Your task to perform on an android device: turn on location history Image 0: 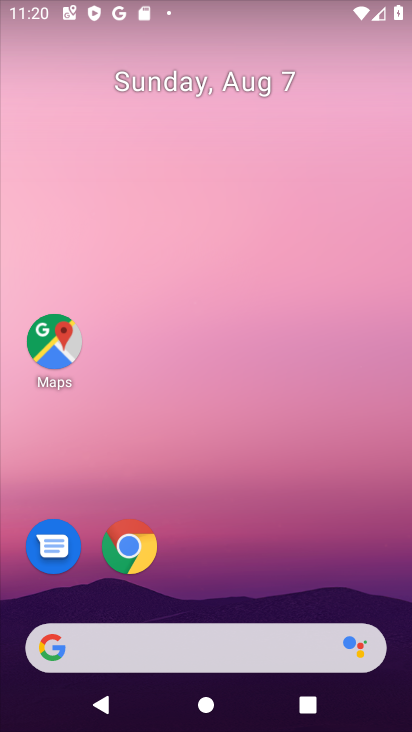
Step 0: press back button
Your task to perform on an android device: turn on location history Image 1: 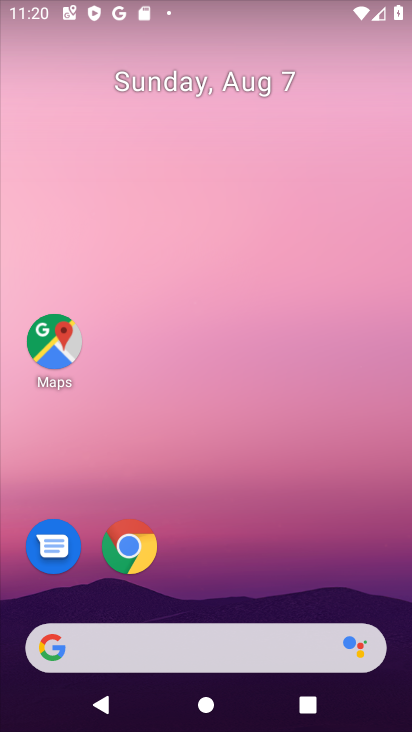
Step 1: click (107, 181)
Your task to perform on an android device: turn on location history Image 2: 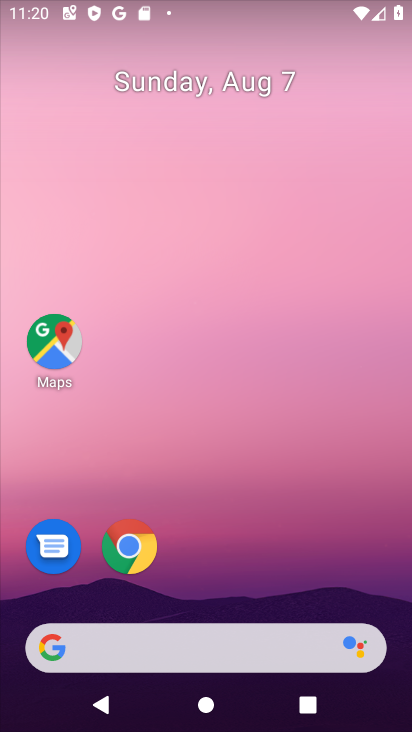
Step 2: drag from (232, 625) to (192, 238)
Your task to perform on an android device: turn on location history Image 3: 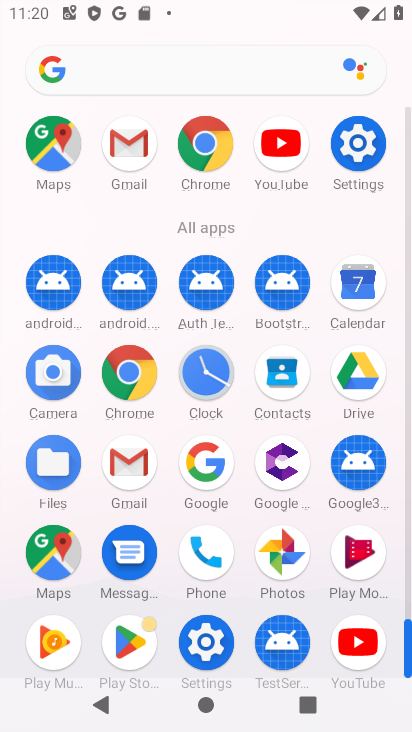
Step 3: drag from (220, 591) to (144, 156)
Your task to perform on an android device: turn on location history Image 4: 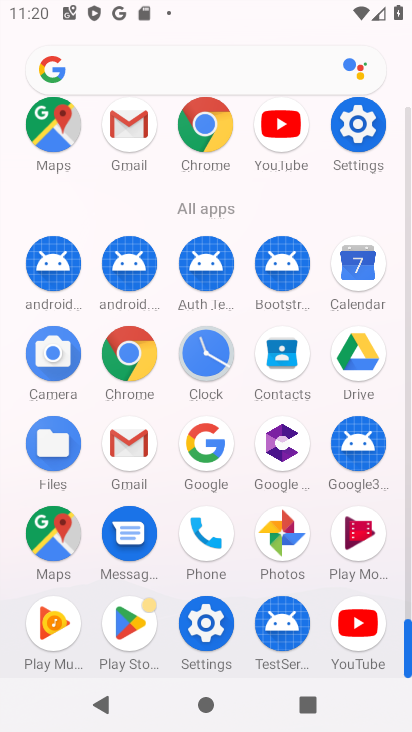
Step 4: click (53, 138)
Your task to perform on an android device: turn on location history Image 5: 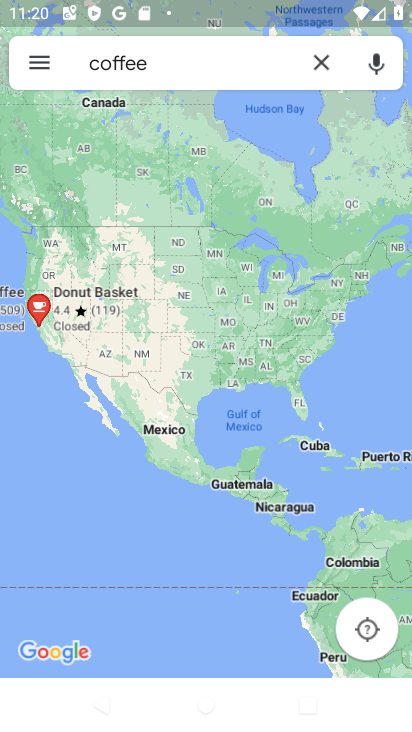
Step 5: press back button
Your task to perform on an android device: turn on location history Image 6: 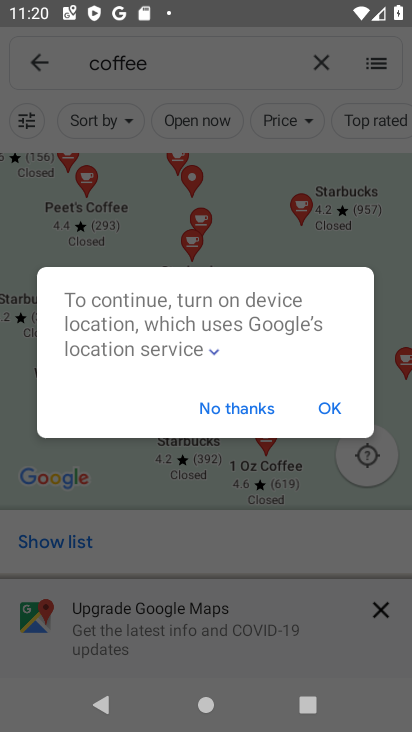
Step 6: click (235, 403)
Your task to perform on an android device: turn on location history Image 7: 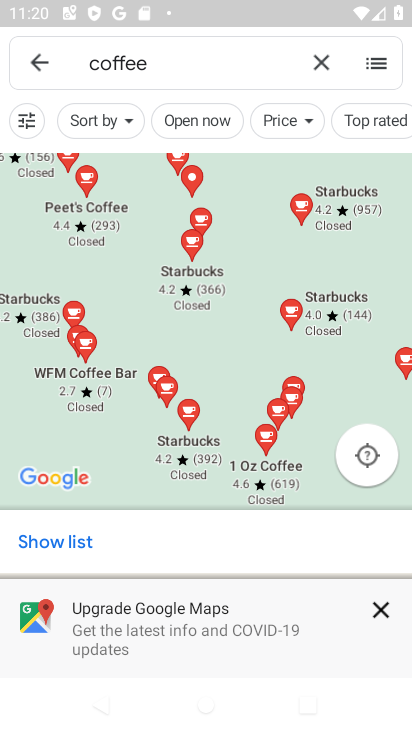
Step 7: click (380, 70)
Your task to perform on an android device: turn on location history Image 8: 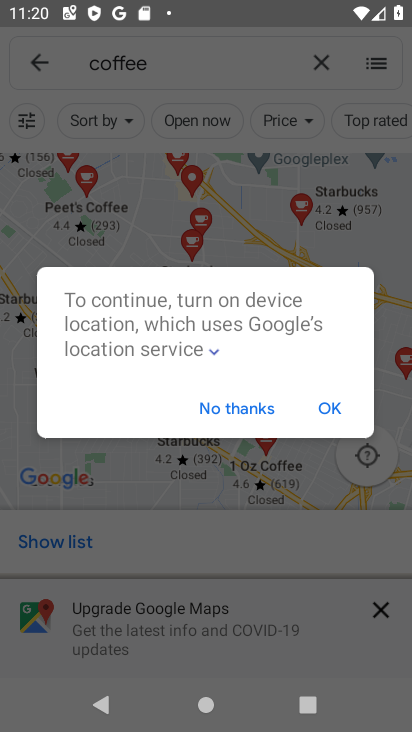
Step 8: click (246, 389)
Your task to perform on an android device: turn on location history Image 9: 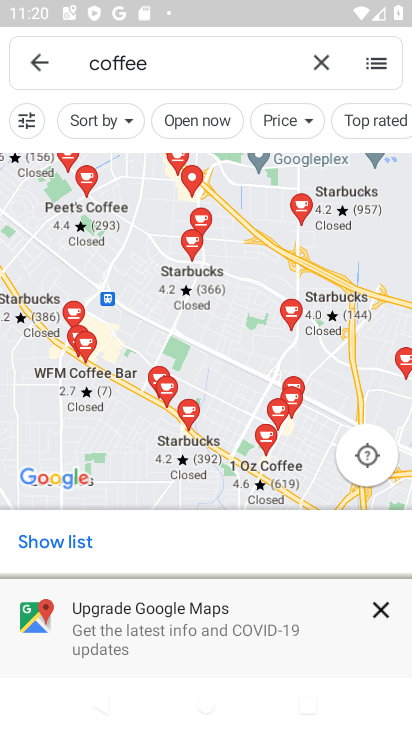
Step 9: press back button
Your task to perform on an android device: turn on location history Image 10: 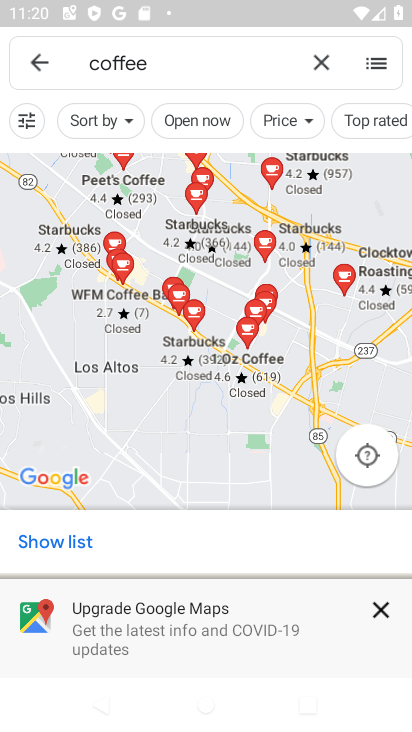
Step 10: press back button
Your task to perform on an android device: turn on location history Image 11: 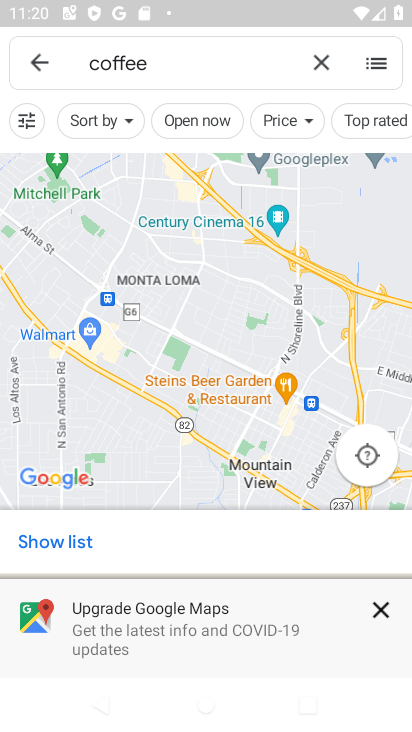
Step 11: press back button
Your task to perform on an android device: turn on location history Image 12: 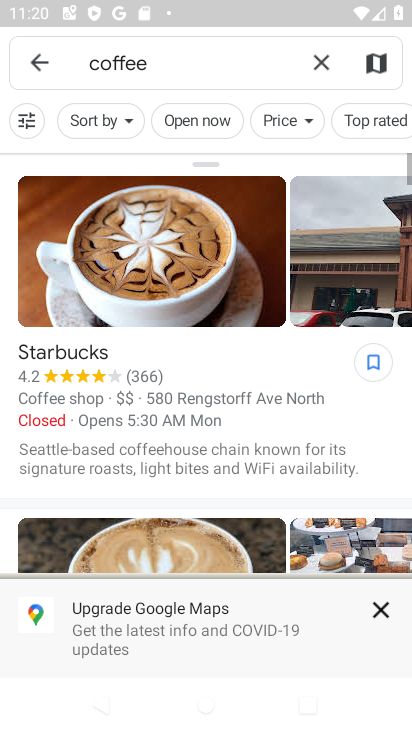
Step 12: press home button
Your task to perform on an android device: turn on location history Image 13: 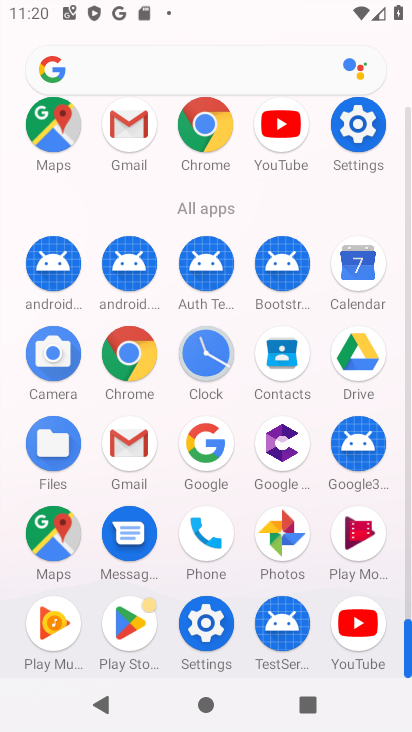
Step 13: press home button
Your task to perform on an android device: turn on location history Image 14: 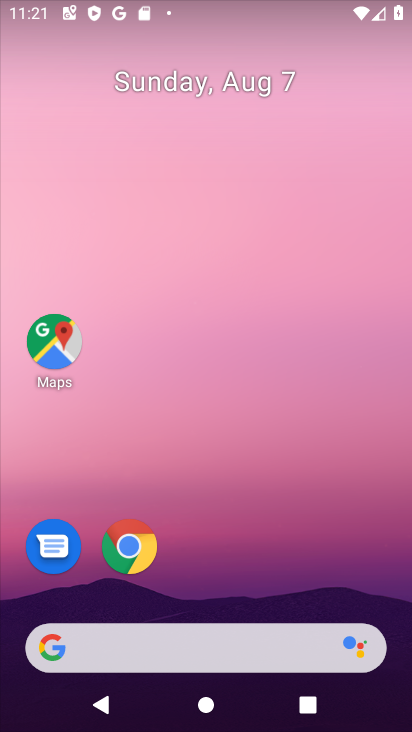
Step 14: press home button
Your task to perform on an android device: turn on location history Image 15: 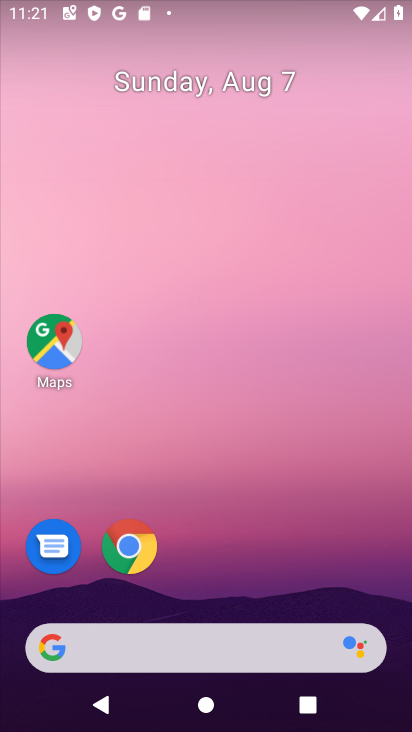
Step 15: press home button
Your task to perform on an android device: turn on location history Image 16: 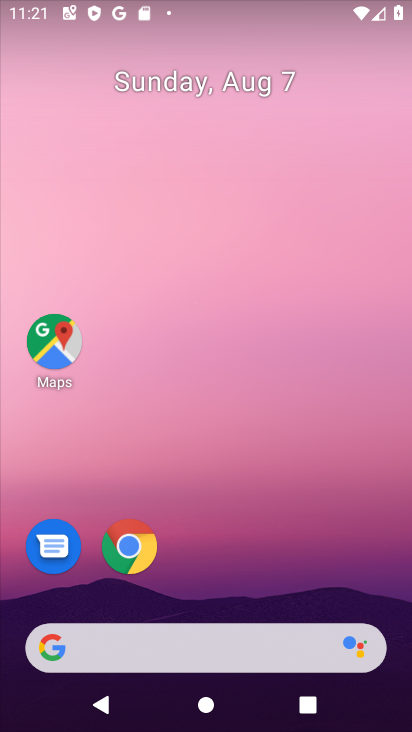
Step 16: drag from (261, 660) to (244, 184)
Your task to perform on an android device: turn on location history Image 17: 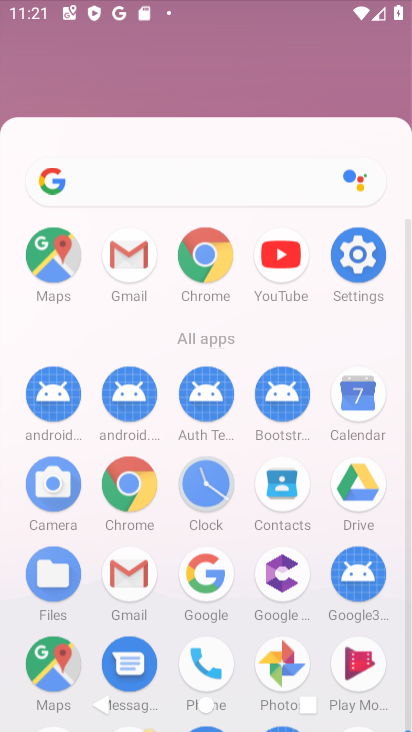
Step 17: click (166, 177)
Your task to perform on an android device: turn on location history Image 18: 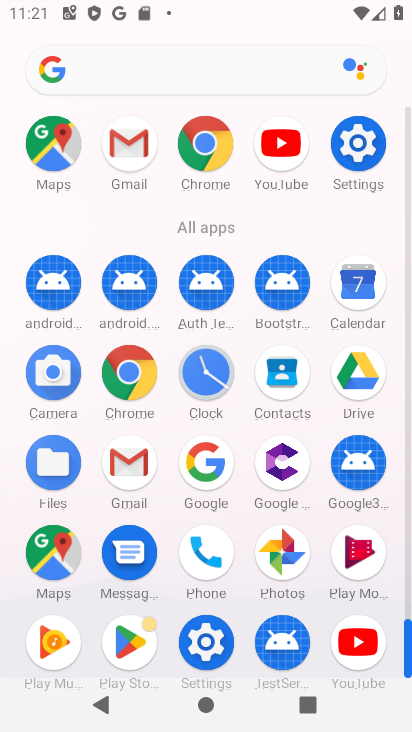
Step 18: drag from (267, 424) to (252, 167)
Your task to perform on an android device: turn on location history Image 19: 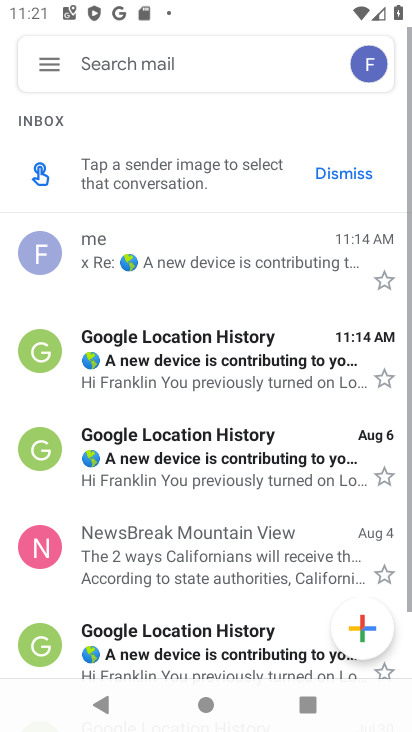
Step 19: press back button
Your task to perform on an android device: turn on location history Image 20: 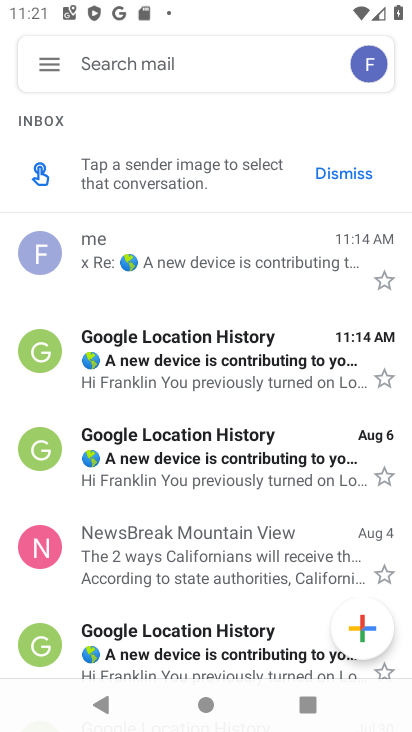
Step 20: press back button
Your task to perform on an android device: turn on location history Image 21: 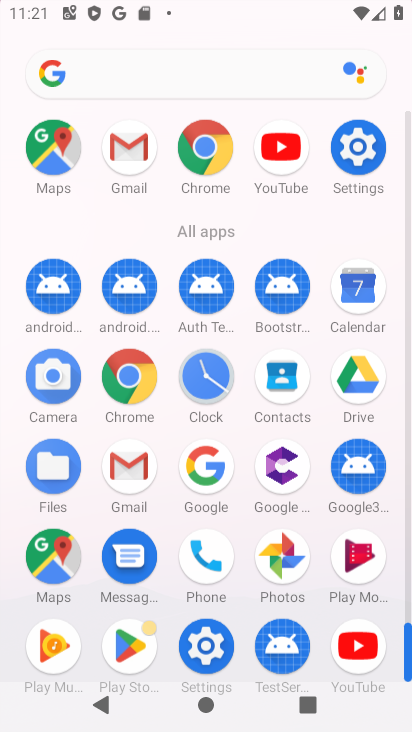
Step 21: press back button
Your task to perform on an android device: turn on location history Image 22: 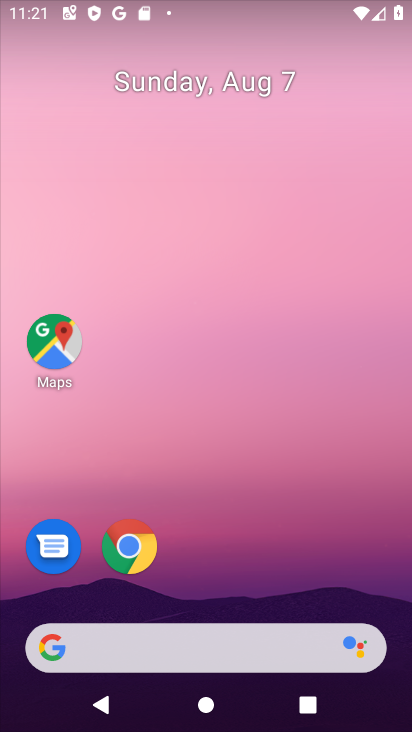
Step 22: drag from (255, 598) to (198, 194)
Your task to perform on an android device: turn on location history Image 23: 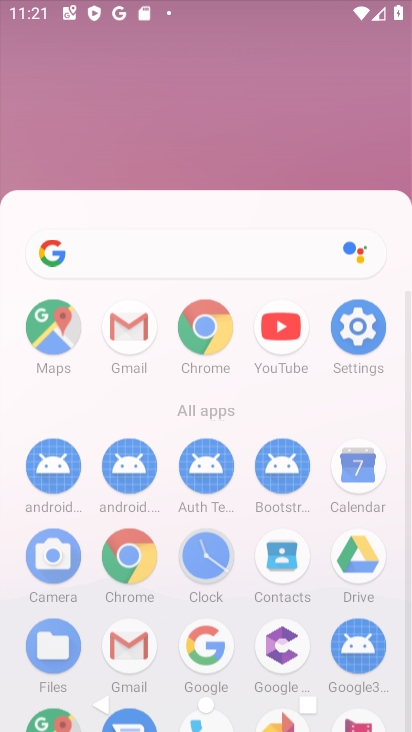
Step 23: click (259, 331)
Your task to perform on an android device: turn on location history Image 24: 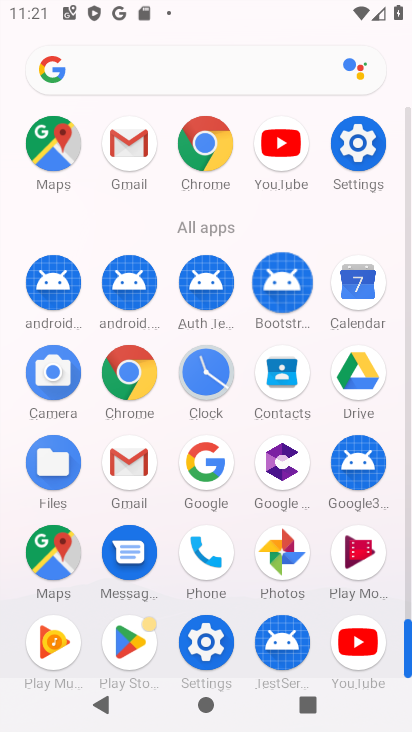
Step 24: click (367, 150)
Your task to perform on an android device: turn on location history Image 25: 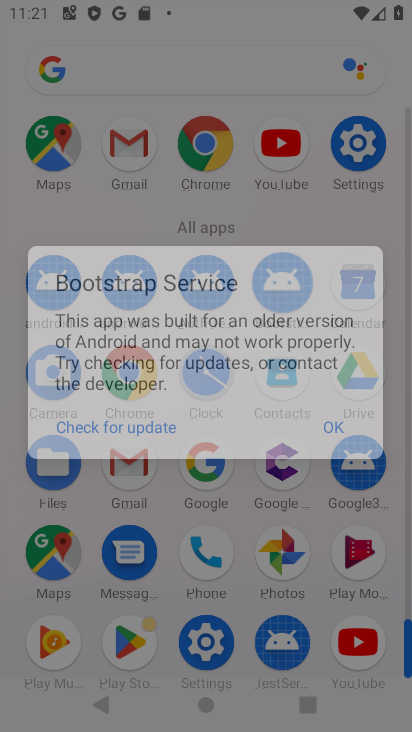
Step 25: click (361, 145)
Your task to perform on an android device: turn on location history Image 26: 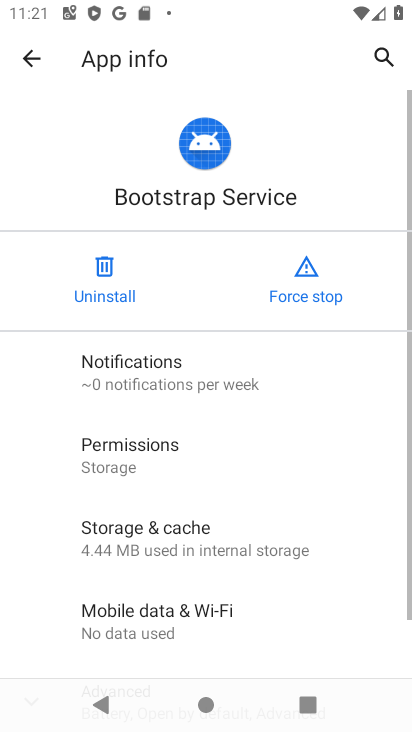
Step 26: click (36, 59)
Your task to perform on an android device: turn on location history Image 27: 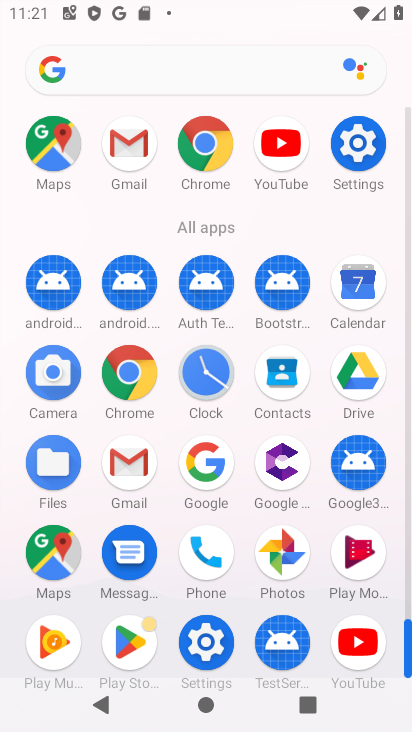
Step 27: click (358, 150)
Your task to perform on an android device: turn on location history Image 28: 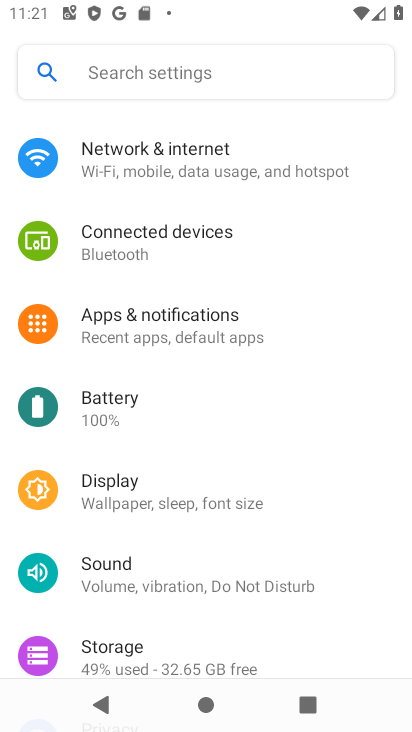
Step 28: click (358, 150)
Your task to perform on an android device: turn on location history Image 29: 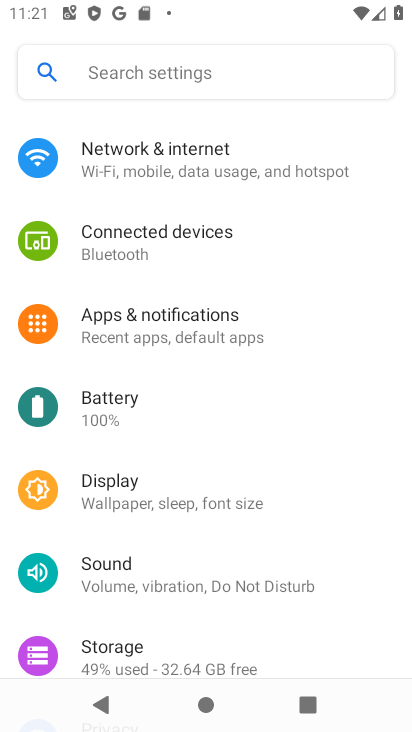
Step 29: click (358, 150)
Your task to perform on an android device: turn on location history Image 30: 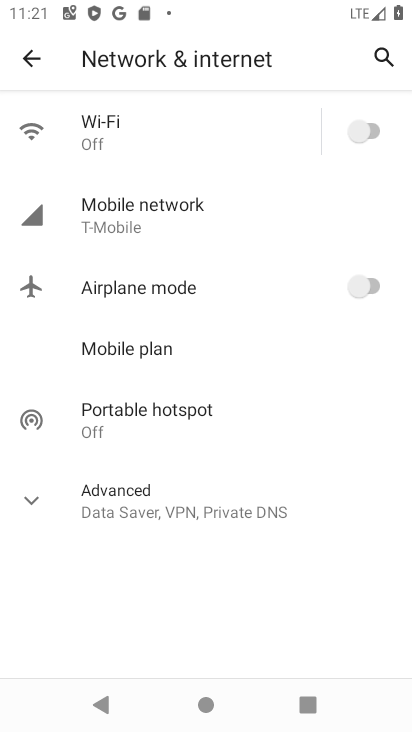
Step 30: click (32, 53)
Your task to perform on an android device: turn on location history Image 31: 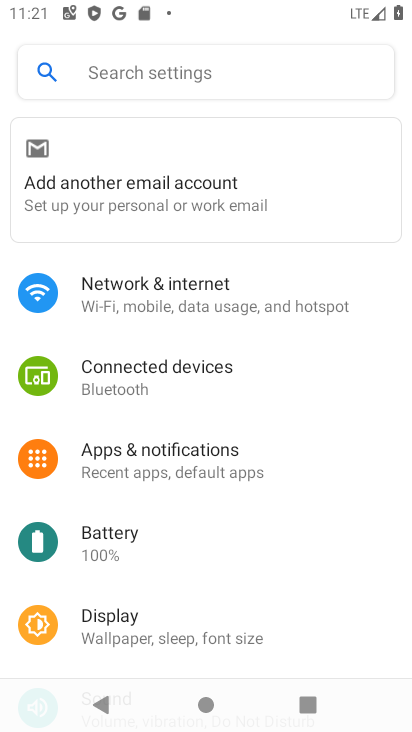
Step 31: drag from (163, 557) to (141, 164)
Your task to perform on an android device: turn on location history Image 32: 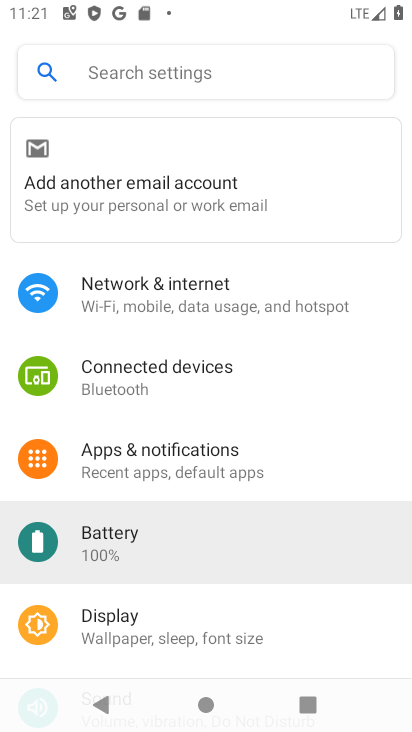
Step 32: drag from (201, 461) to (208, 232)
Your task to perform on an android device: turn on location history Image 33: 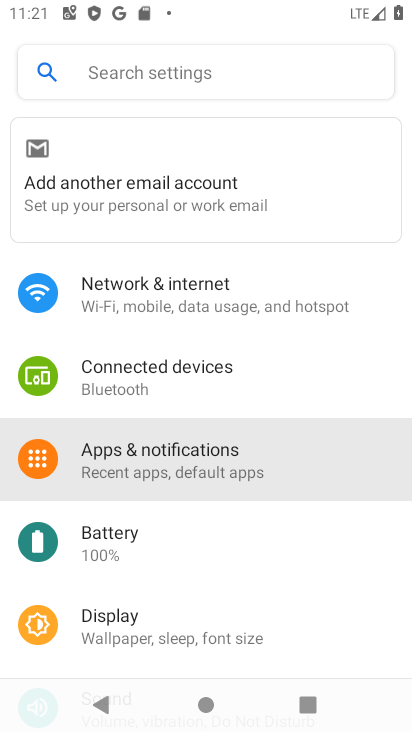
Step 33: drag from (246, 425) to (281, 207)
Your task to perform on an android device: turn on location history Image 34: 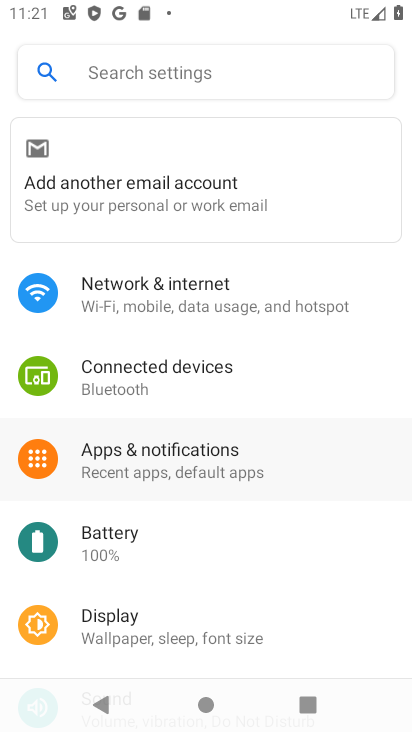
Step 34: drag from (208, 539) to (241, 323)
Your task to perform on an android device: turn on location history Image 35: 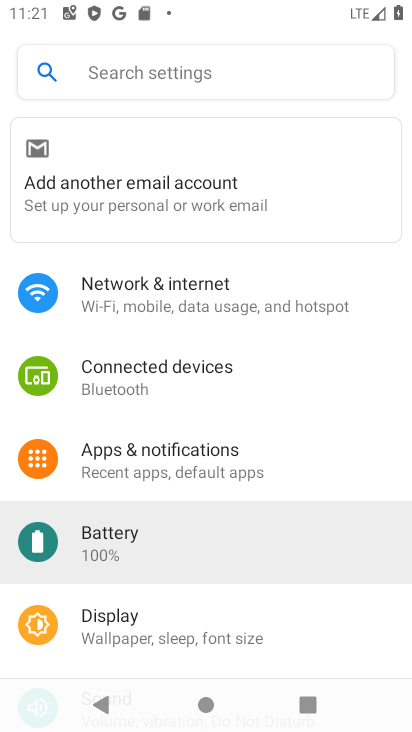
Step 35: drag from (244, 527) to (230, 327)
Your task to perform on an android device: turn on location history Image 36: 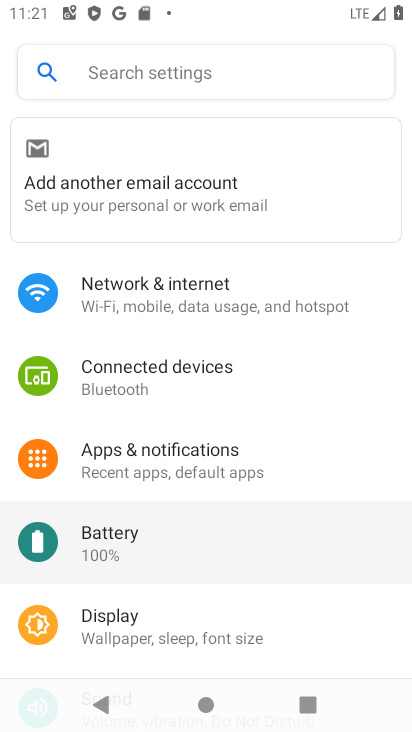
Step 36: drag from (221, 511) to (286, 260)
Your task to perform on an android device: turn on location history Image 37: 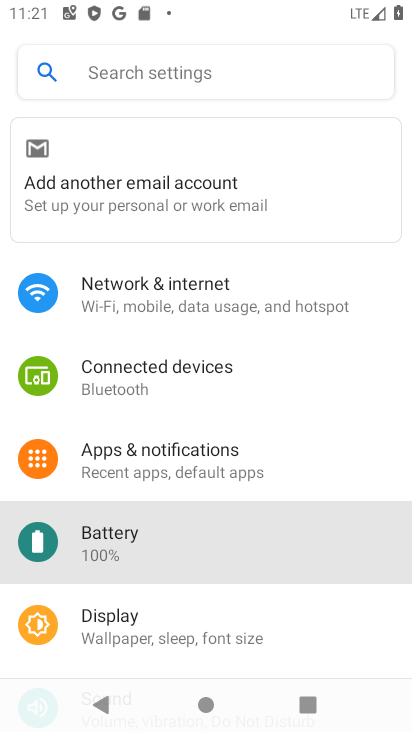
Step 37: drag from (281, 528) to (328, 208)
Your task to perform on an android device: turn on location history Image 38: 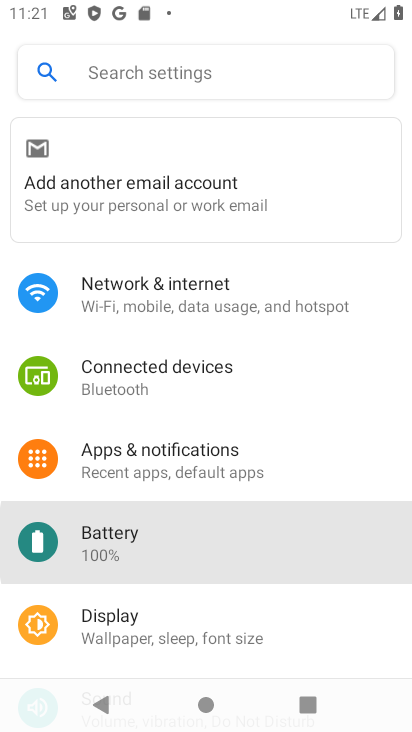
Step 38: drag from (213, 580) to (307, 204)
Your task to perform on an android device: turn on location history Image 39: 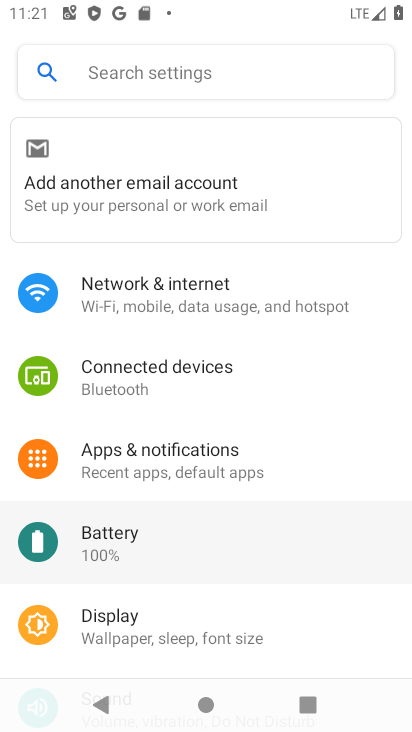
Step 39: drag from (225, 620) to (294, 271)
Your task to perform on an android device: turn on location history Image 40: 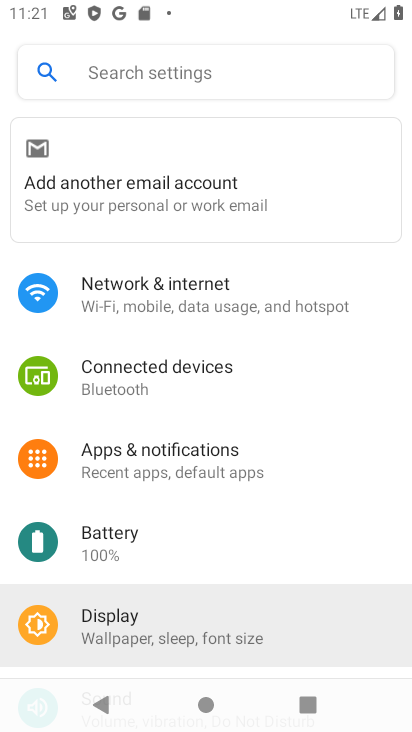
Step 40: drag from (259, 588) to (337, 316)
Your task to perform on an android device: turn on location history Image 41: 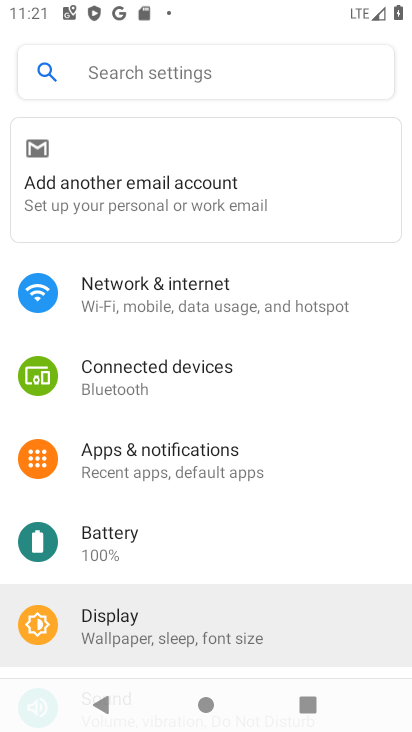
Step 41: drag from (257, 633) to (249, 246)
Your task to perform on an android device: turn on location history Image 42: 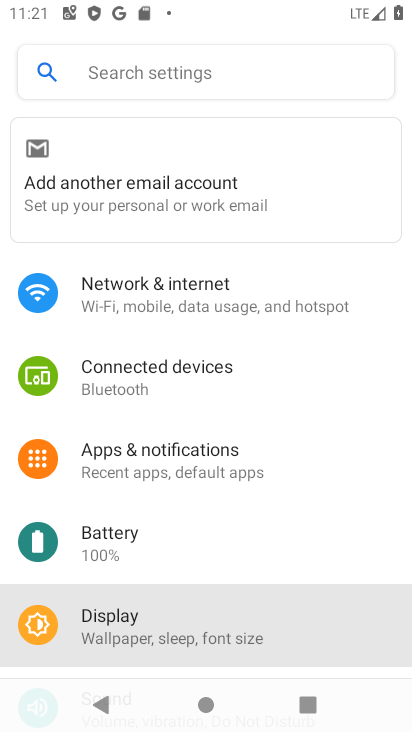
Step 42: drag from (139, 586) to (138, 242)
Your task to perform on an android device: turn on location history Image 43: 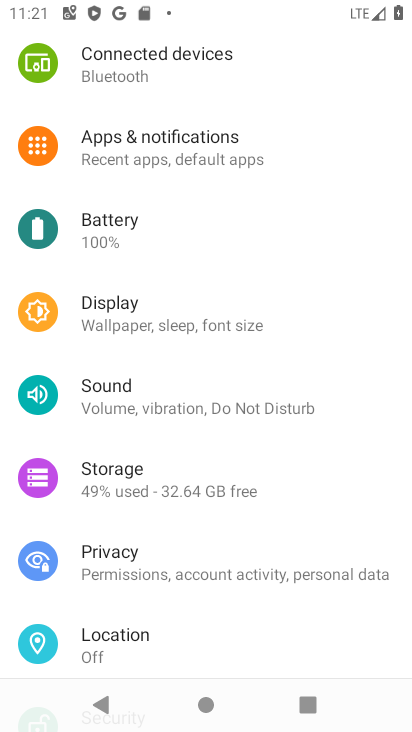
Step 43: drag from (167, 502) to (162, 241)
Your task to perform on an android device: turn on location history Image 44: 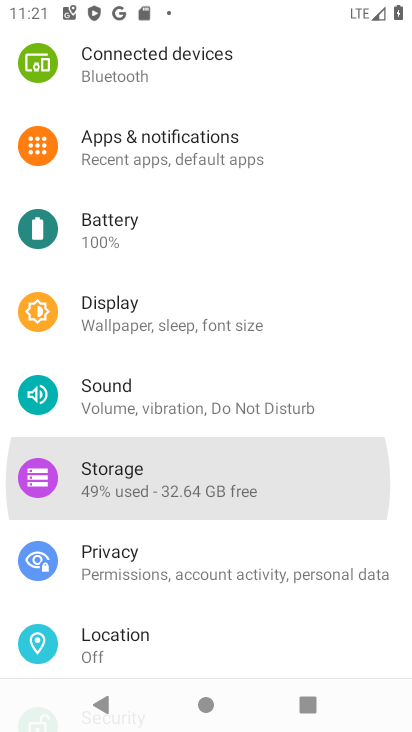
Step 44: drag from (203, 562) to (208, 266)
Your task to perform on an android device: turn on location history Image 45: 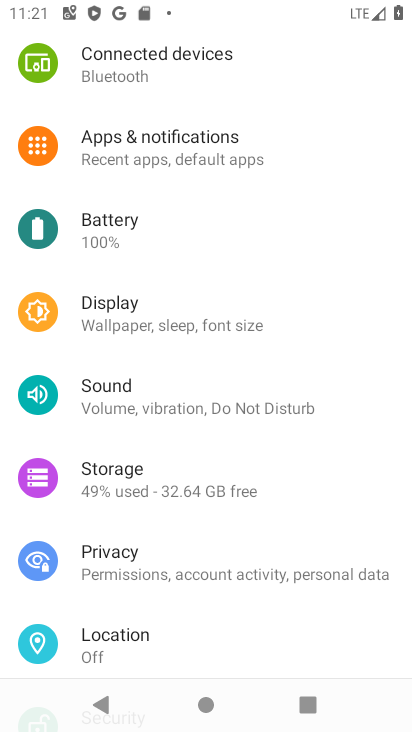
Step 45: click (117, 636)
Your task to perform on an android device: turn on location history Image 46: 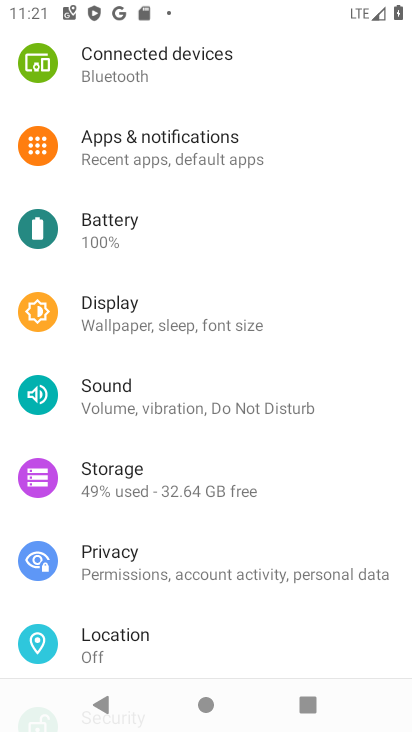
Step 46: click (117, 636)
Your task to perform on an android device: turn on location history Image 47: 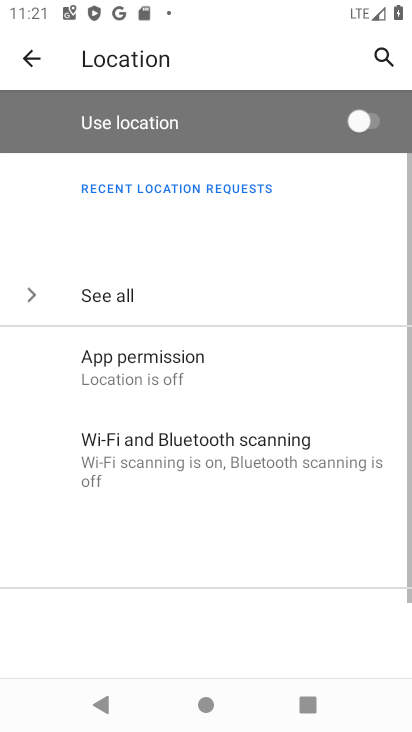
Step 47: click (128, 639)
Your task to perform on an android device: turn on location history Image 48: 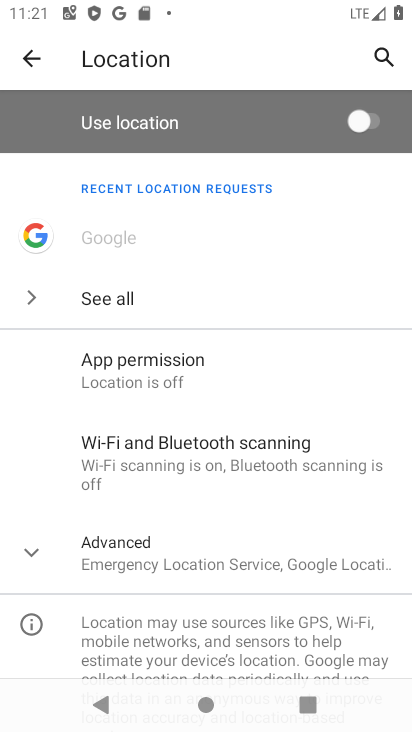
Step 48: drag from (163, 502) to (150, 233)
Your task to perform on an android device: turn on location history Image 49: 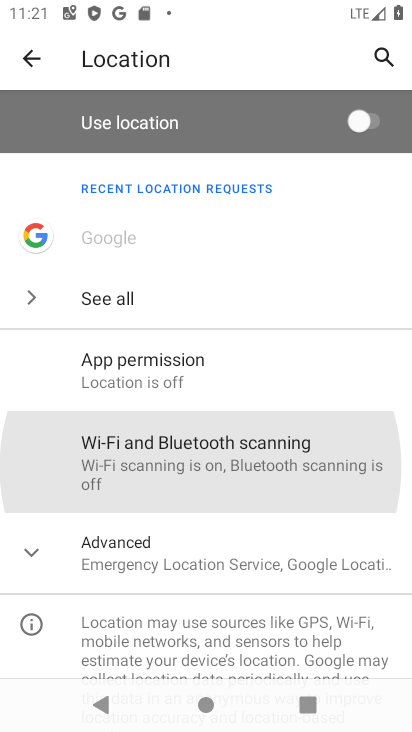
Step 49: drag from (173, 508) to (187, 296)
Your task to perform on an android device: turn on location history Image 50: 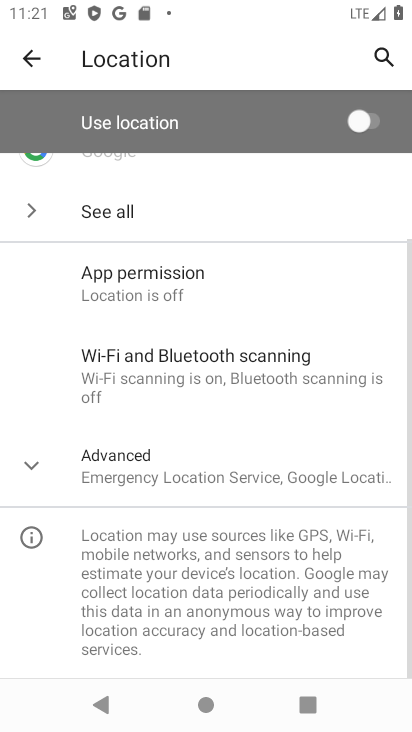
Step 50: click (162, 543)
Your task to perform on an android device: turn on location history Image 51: 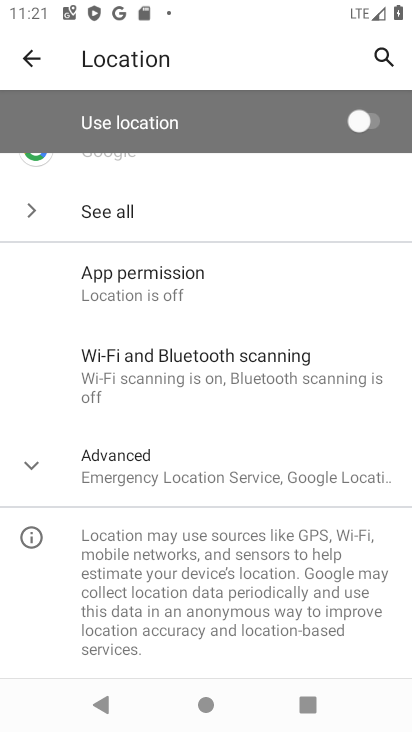
Step 51: click (121, 452)
Your task to perform on an android device: turn on location history Image 52: 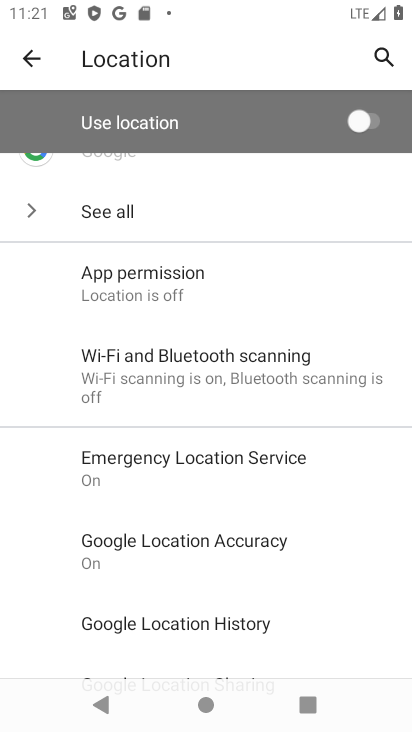
Step 52: drag from (264, 581) to (246, 314)
Your task to perform on an android device: turn on location history Image 53: 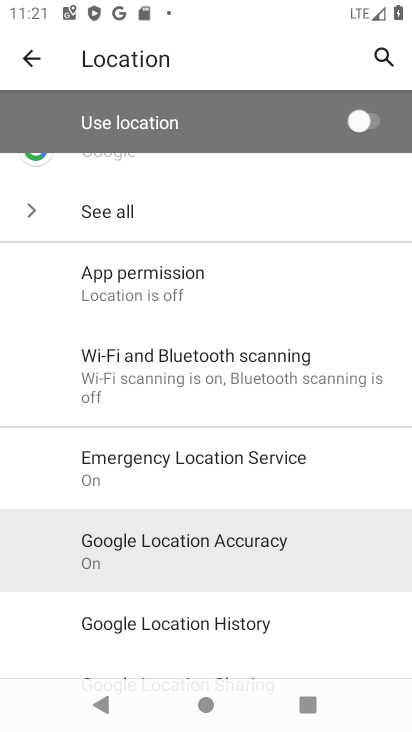
Step 53: drag from (265, 543) to (273, 394)
Your task to perform on an android device: turn on location history Image 54: 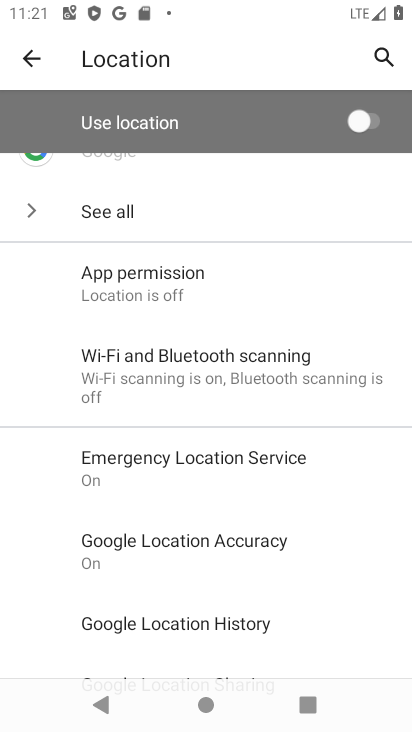
Step 54: drag from (259, 563) to (217, 271)
Your task to perform on an android device: turn on location history Image 55: 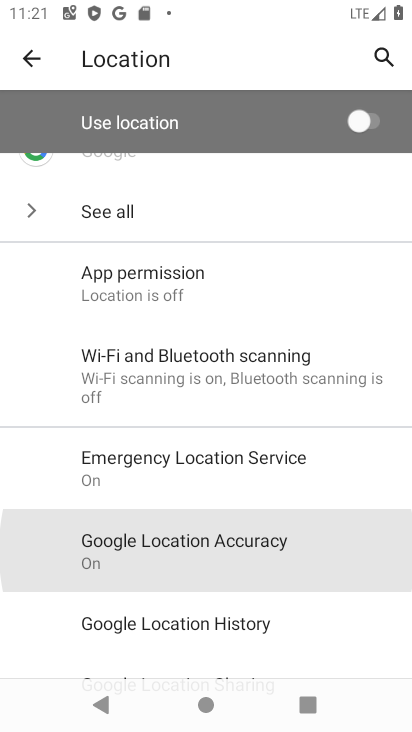
Step 55: drag from (197, 531) to (166, 336)
Your task to perform on an android device: turn on location history Image 56: 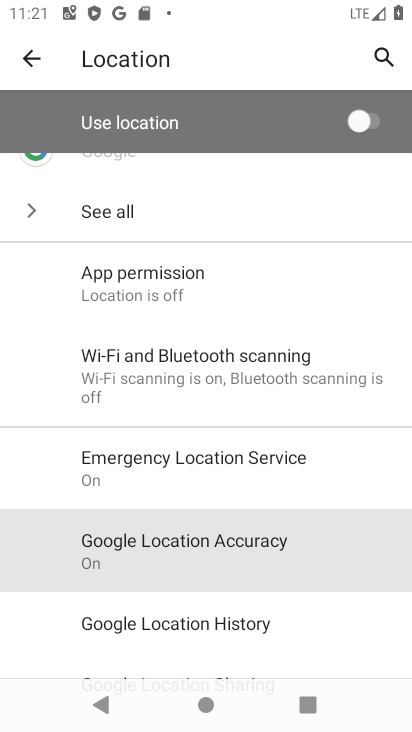
Step 56: drag from (200, 548) to (222, 277)
Your task to perform on an android device: turn on location history Image 57: 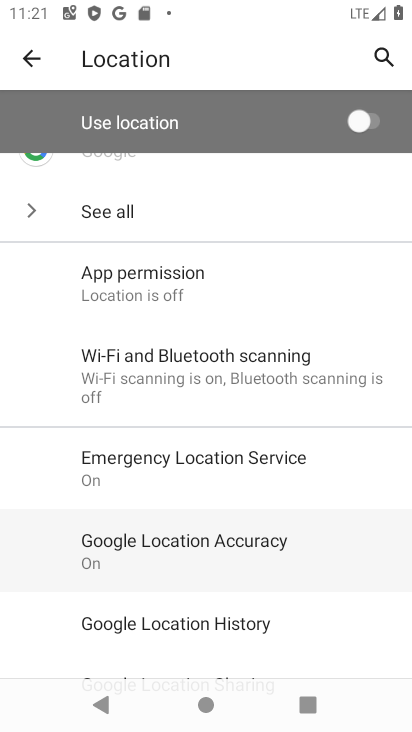
Step 57: drag from (241, 562) to (266, 355)
Your task to perform on an android device: turn on location history Image 58: 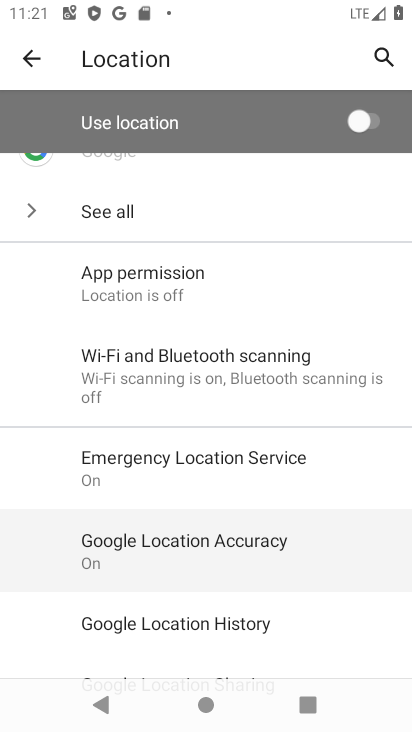
Step 58: drag from (238, 631) to (276, 351)
Your task to perform on an android device: turn on location history Image 59: 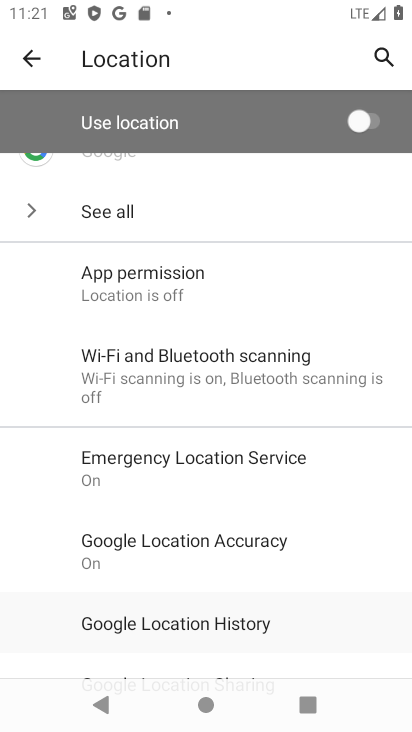
Step 59: drag from (171, 675) to (225, 422)
Your task to perform on an android device: turn on location history Image 60: 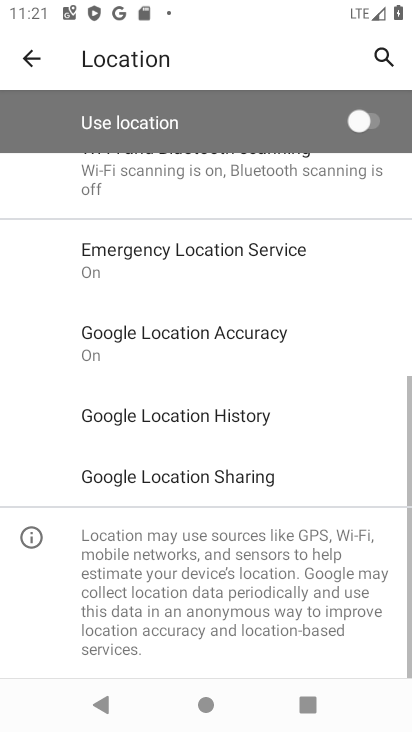
Step 60: click (194, 616)
Your task to perform on an android device: turn on location history Image 61: 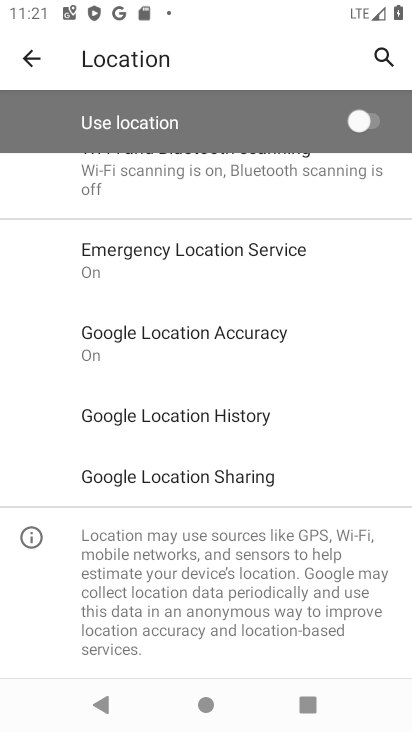
Step 61: click (229, 409)
Your task to perform on an android device: turn on location history Image 62: 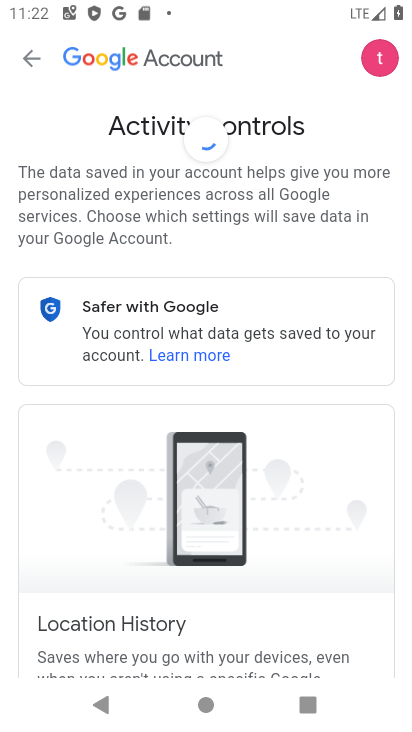
Step 62: drag from (240, 524) to (201, 186)
Your task to perform on an android device: turn on location history Image 63: 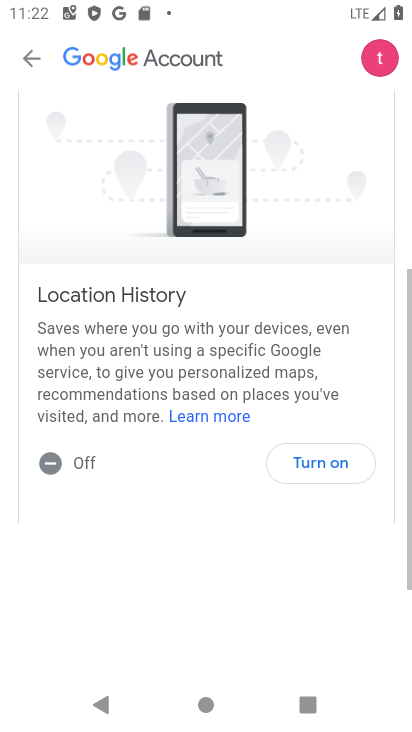
Step 63: drag from (183, 537) to (221, 269)
Your task to perform on an android device: turn on location history Image 64: 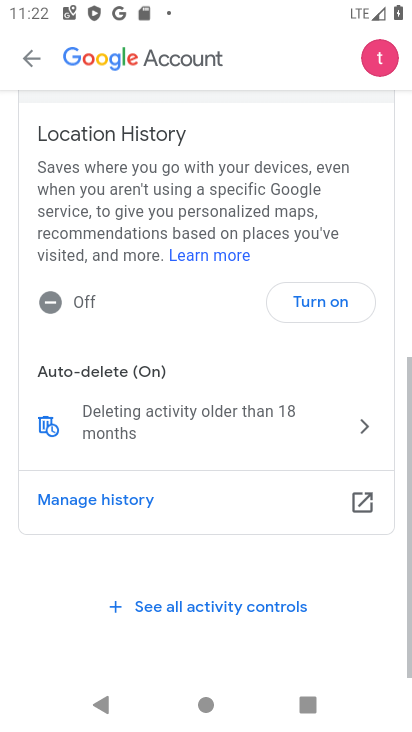
Step 64: drag from (239, 553) to (253, 245)
Your task to perform on an android device: turn on location history Image 65: 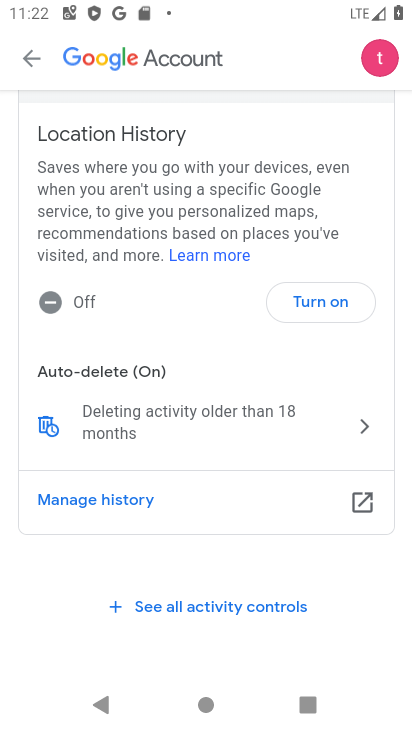
Step 65: click (52, 306)
Your task to perform on an android device: turn on location history Image 66: 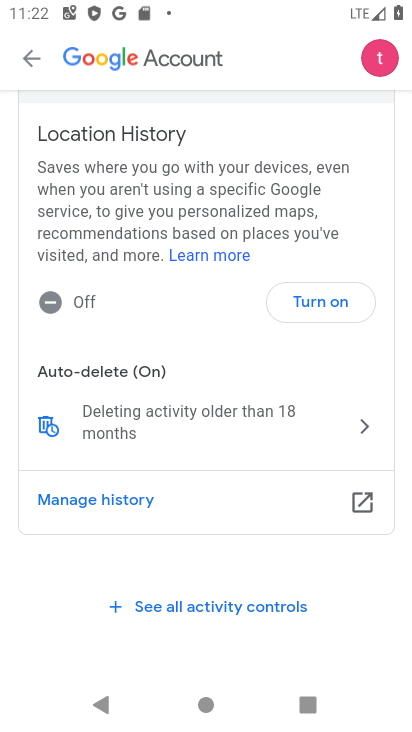
Step 66: click (302, 291)
Your task to perform on an android device: turn on location history Image 67: 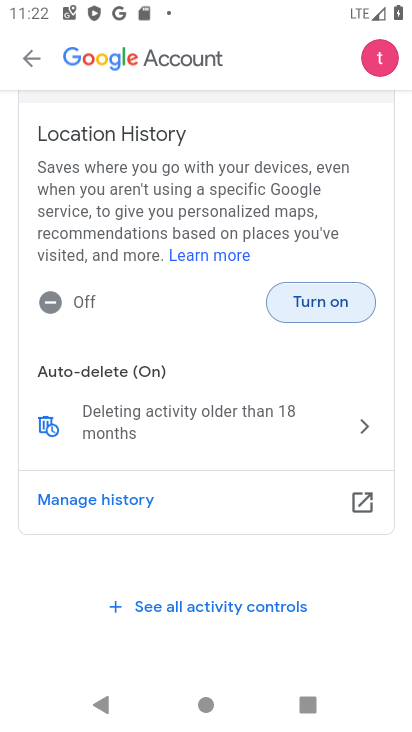
Step 67: click (331, 300)
Your task to perform on an android device: turn on location history Image 68: 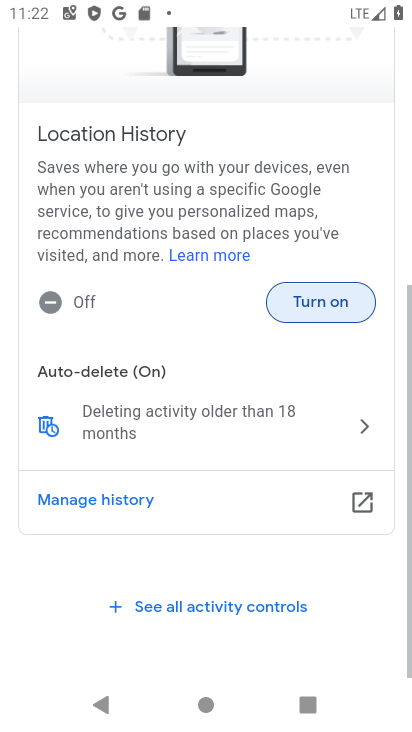
Step 68: task complete